Your task to perform on an android device: change the clock display to digital Image 0: 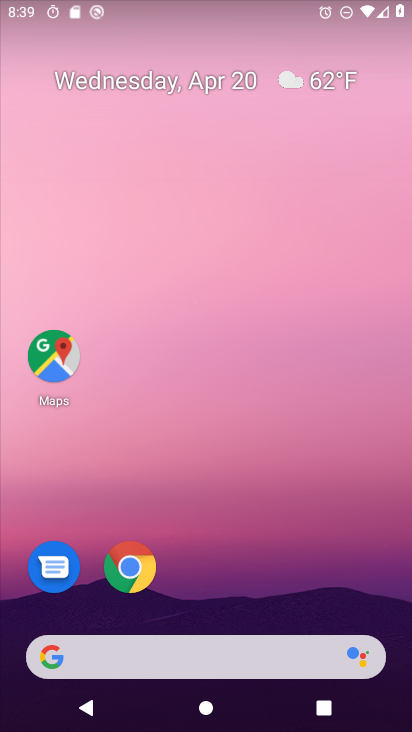
Step 0: drag from (361, 619) to (352, 37)
Your task to perform on an android device: change the clock display to digital Image 1: 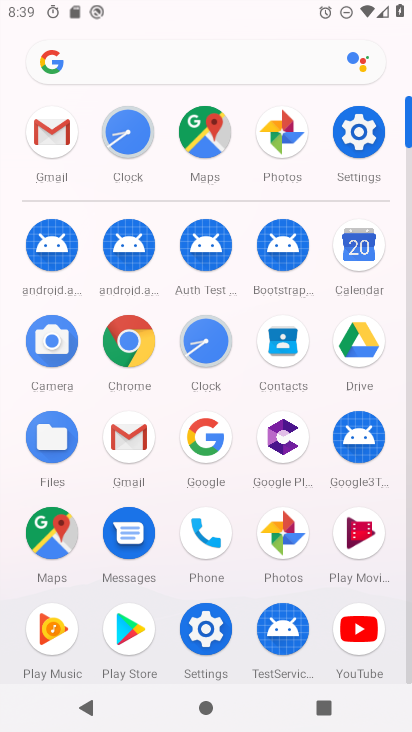
Step 1: click (124, 138)
Your task to perform on an android device: change the clock display to digital Image 2: 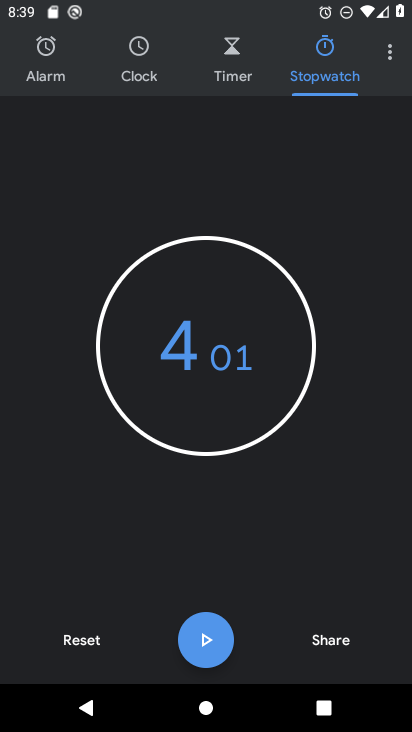
Step 2: click (394, 54)
Your task to perform on an android device: change the clock display to digital Image 3: 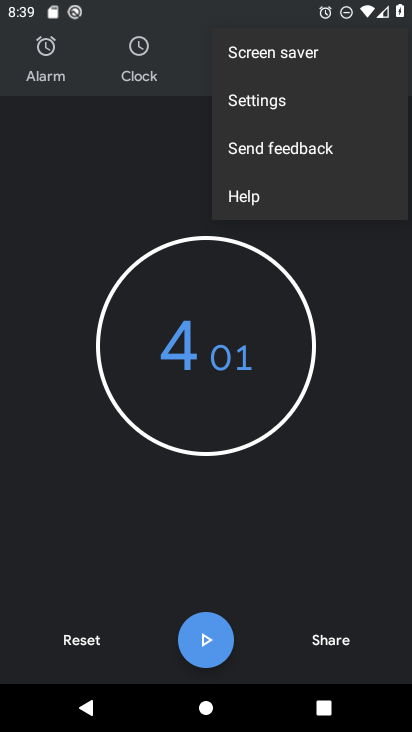
Step 3: click (252, 110)
Your task to perform on an android device: change the clock display to digital Image 4: 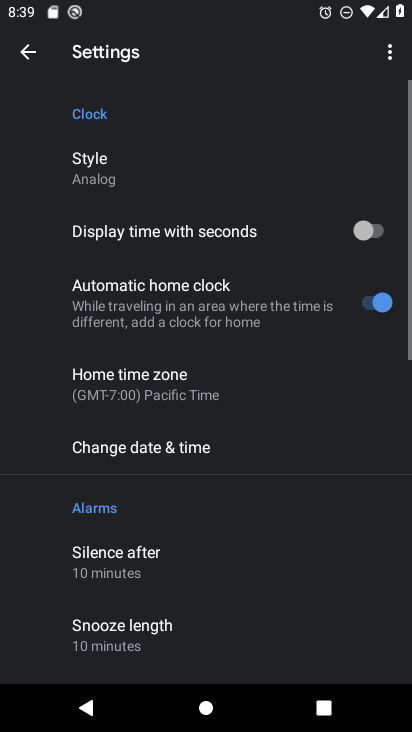
Step 4: click (103, 187)
Your task to perform on an android device: change the clock display to digital Image 5: 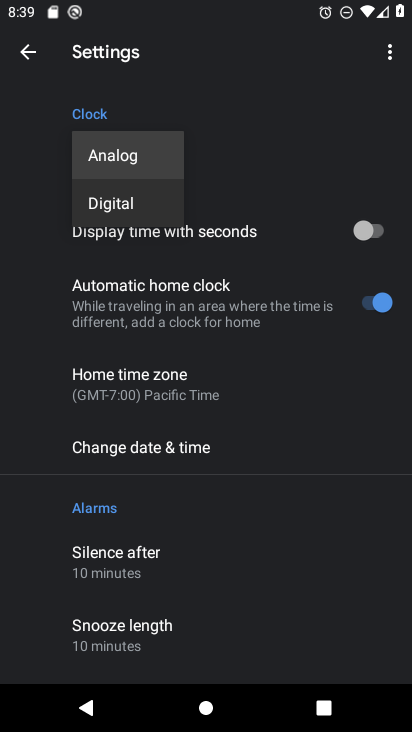
Step 5: click (103, 214)
Your task to perform on an android device: change the clock display to digital Image 6: 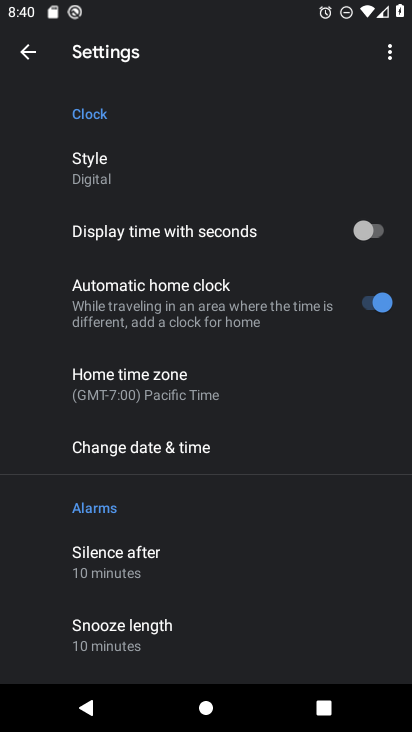
Step 6: task complete